Your task to perform on an android device: Set the phone to "Do not disturb". Image 0: 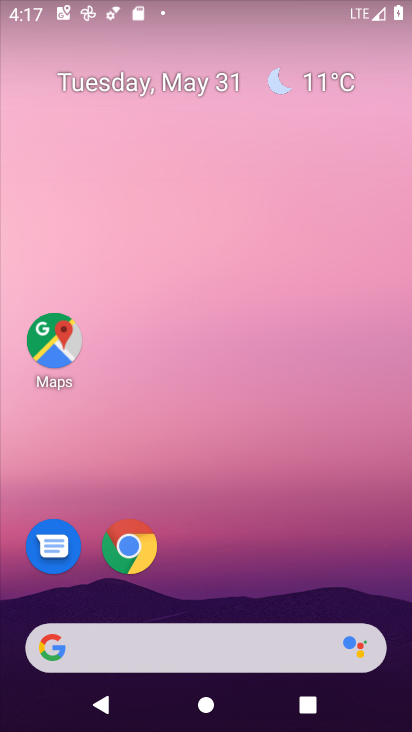
Step 0: drag from (238, 453) to (150, 19)
Your task to perform on an android device: Set the phone to "Do not disturb". Image 1: 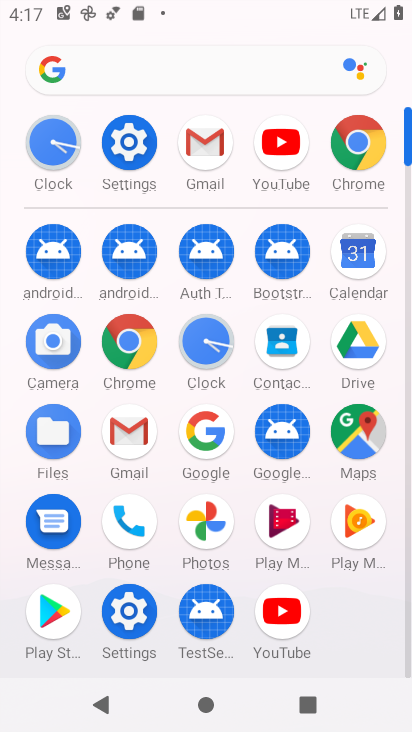
Step 1: click (146, 143)
Your task to perform on an android device: Set the phone to "Do not disturb". Image 2: 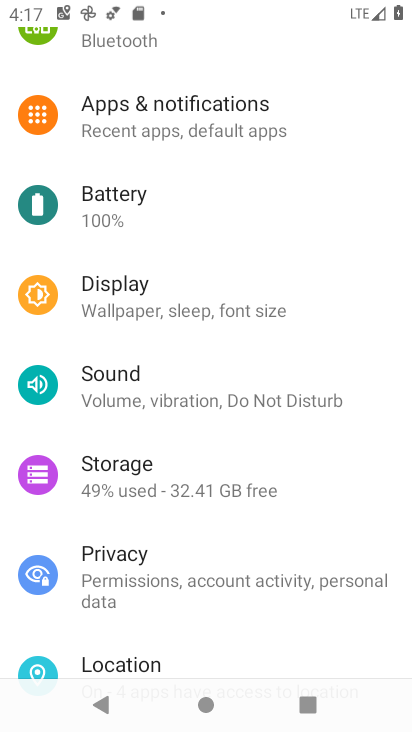
Step 2: click (184, 376)
Your task to perform on an android device: Set the phone to "Do not disturb". Image 3: 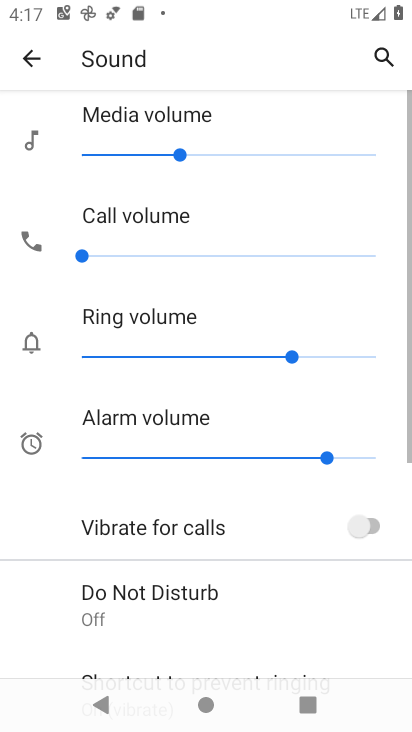
Step 3: drag from (238, 594) to (217, 141)
Your task to perform on an android device: Set the phone to "Do not disturb". Image 4: 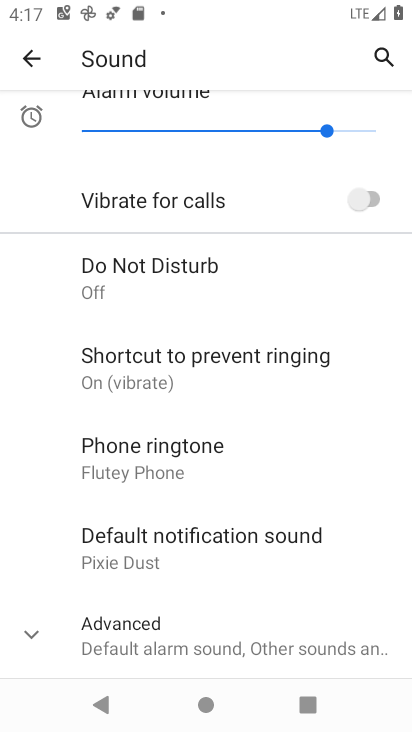
Step 4: click (163, 282)
Your task to perform on an android device: Set the phone to "Do not disturb". Image 5: 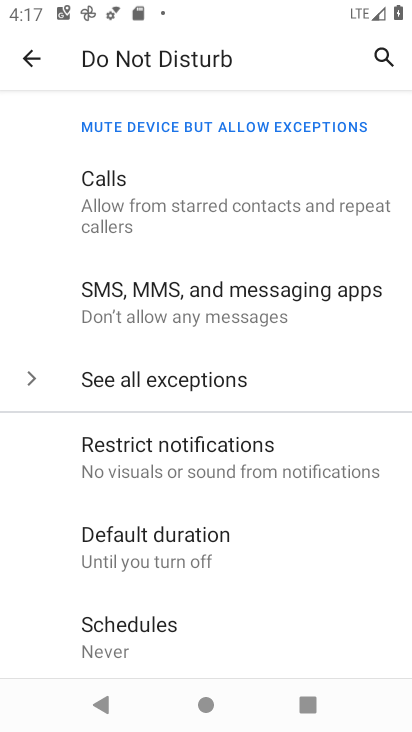
Step 5: drag from (223, 603) to (183, 79)
Your task to perform on an android device: Set the phone to "Do not disturb". Image 6: 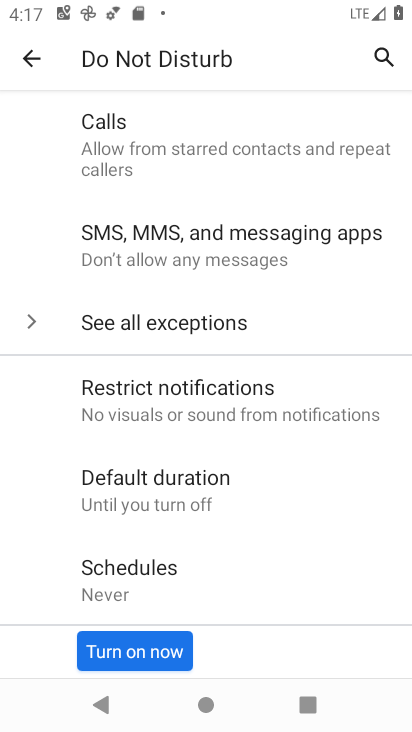
Step 6: click (176, 654)
Your task to perform on an android device: Set the phone to "Do not disturb". Image 7: 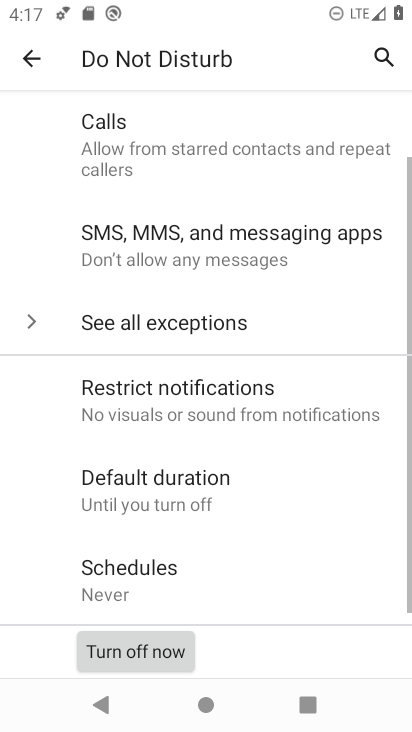
Step 7: task complete